Your task to perform on an android device: Search for Italian restaurants on Maps Image 0: 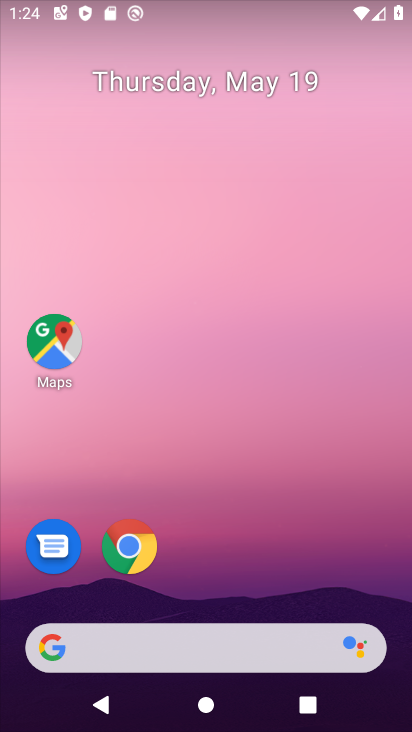
Step 0: click (58, 344)
Your task to perform on an android device: Search for Italian restaurants on Maps Image 1: 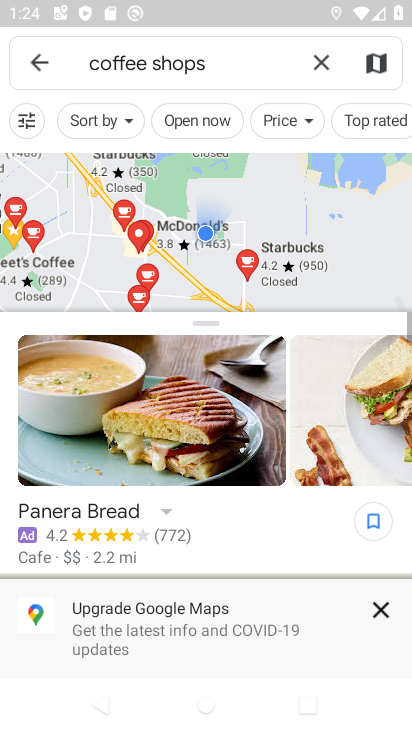
Step 1: click (315, 66)
Your task to perform on an android device: Search for Italian restaurants on Maps Image 2: 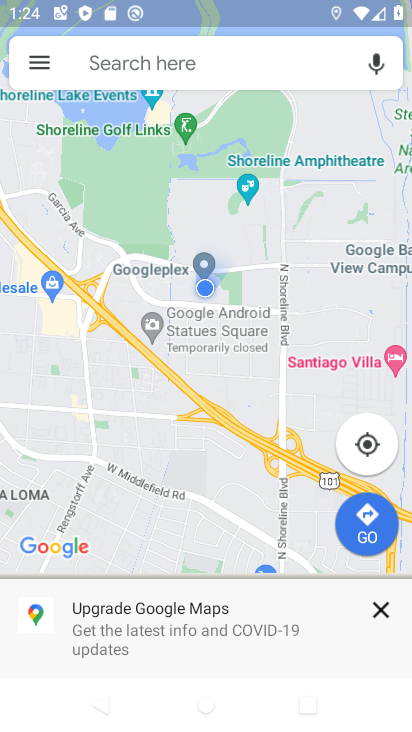
Step 2: type "Italian restaurants"
Your task to perform on an android device: Search for Italian restaurants on Maps Image 3: 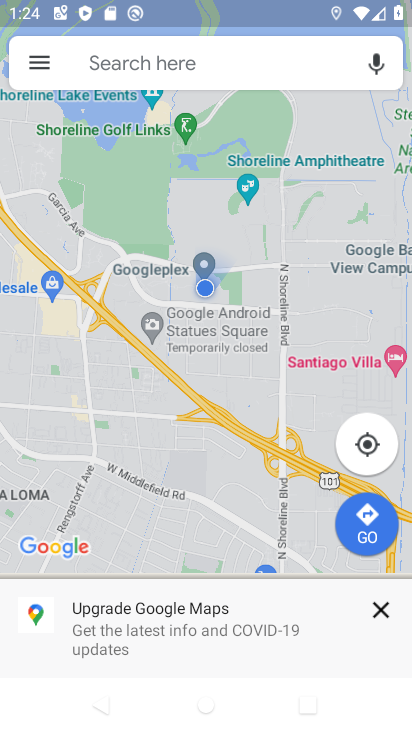
Step 3: click (144, 66)
Your task to perform on an android device: Search for Italian restaurants on Maps Image 4: 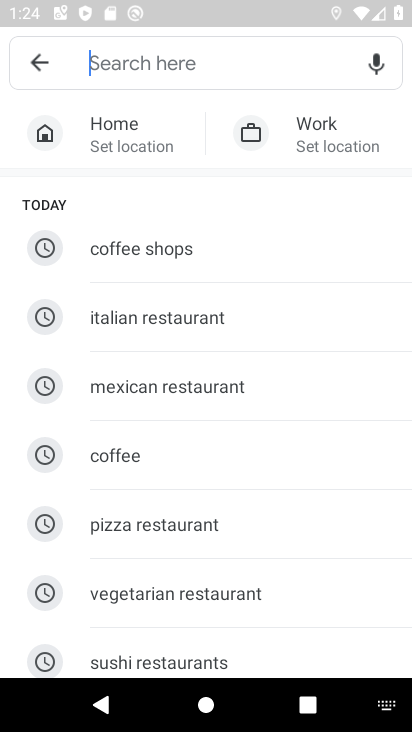
Step 4: click (180, 321)
Your task to perform on an android device: Search for Italian restaurants on Maps Image 5: 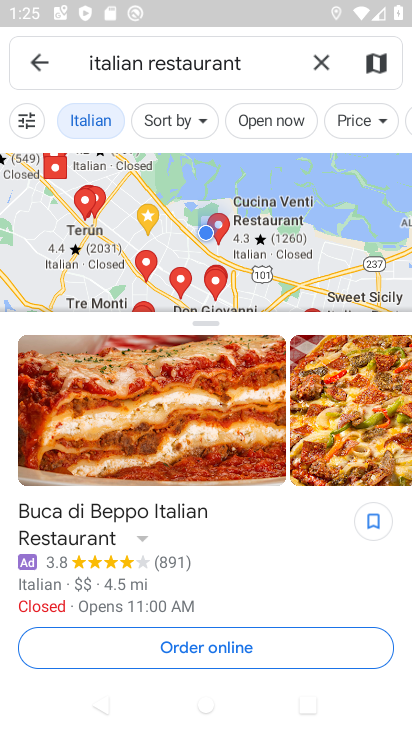
Step 5: task complete